Your task to perform on an android device: set the stopwatch Image 0: 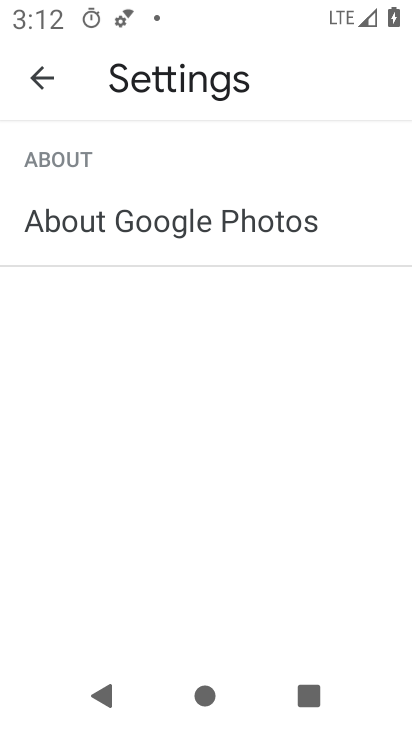
Step 0: press home button
Your task to perform on an android device: set the stopwatch Image 1: 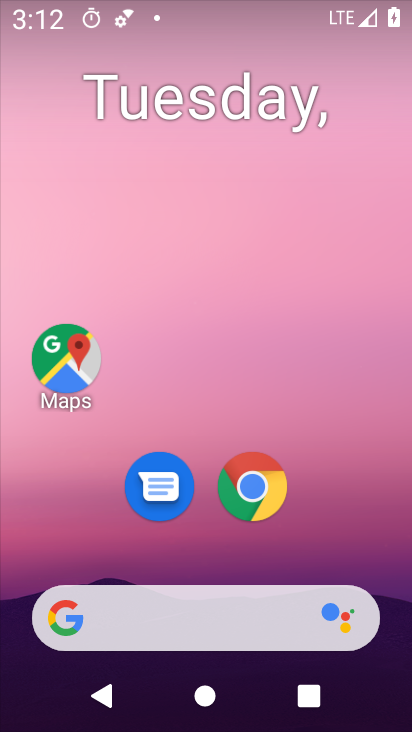
Step 1: drag from (333, 530) to (346, 99)
Your task to perform on an android device: set the stopwatch Image 2: 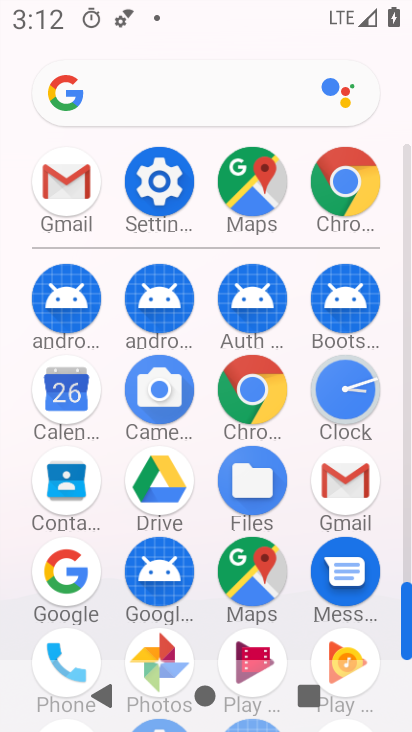
Step 2: click (358, 395)
Your task to perform on an android device: set the stopwatch Image 3: 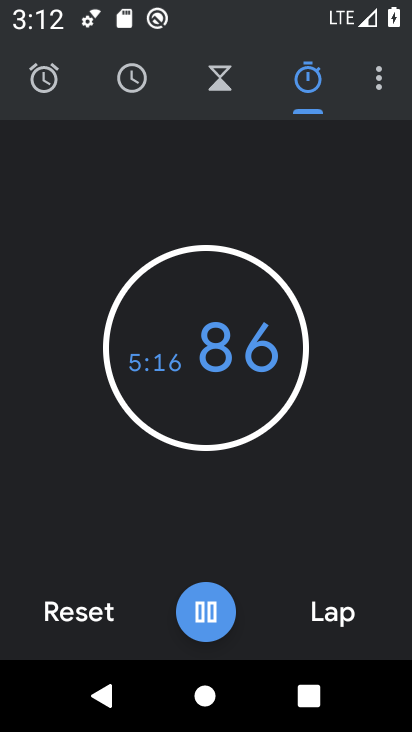
Step 3: task complete